Your task to perform on an android device: What's the weather going to be this weekend? Image 0: 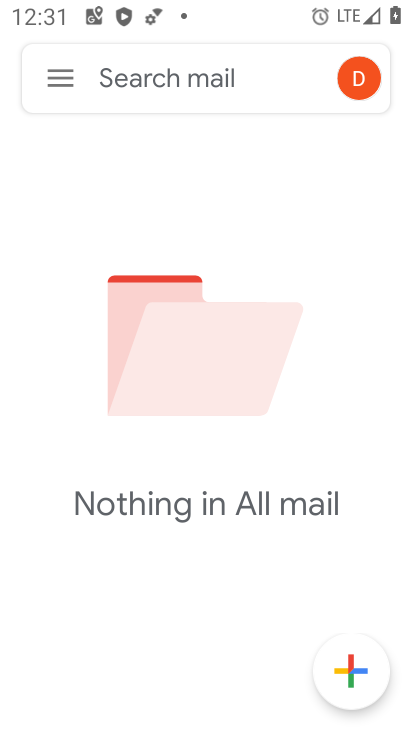
Step 0: press home button
Your task to perform on an android device: What's the weather going to be this weekend? Image 1: 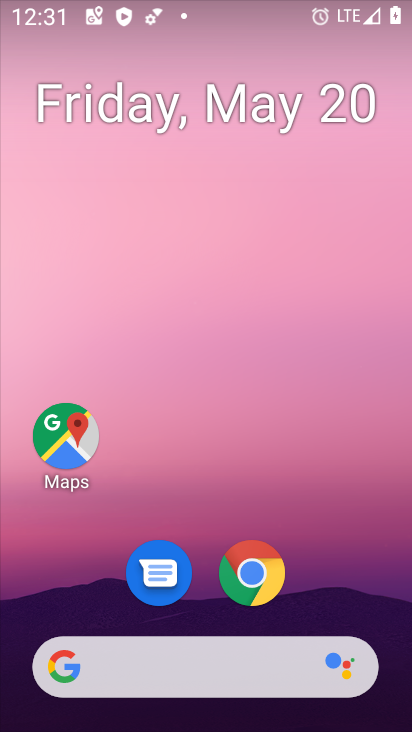
Step 1: drag from (343, 571) to (332, 30)
Your task to perform on an android device: What's the weather going to be this weekend? Image 2: 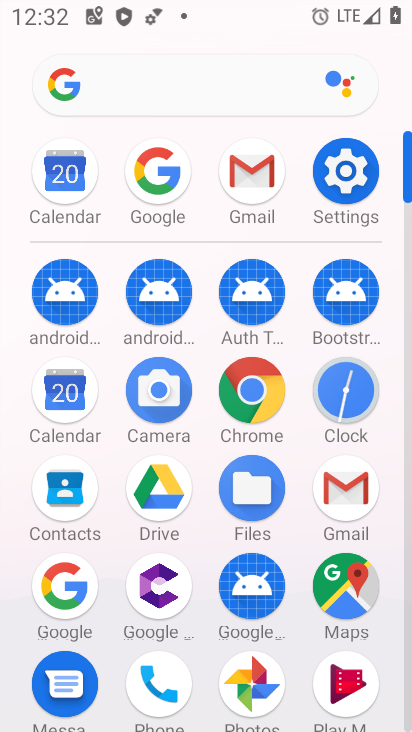
Step 2: click (165, 159)
Your task to perform on an android device: What's the weather going to be this weekend? Image 3: 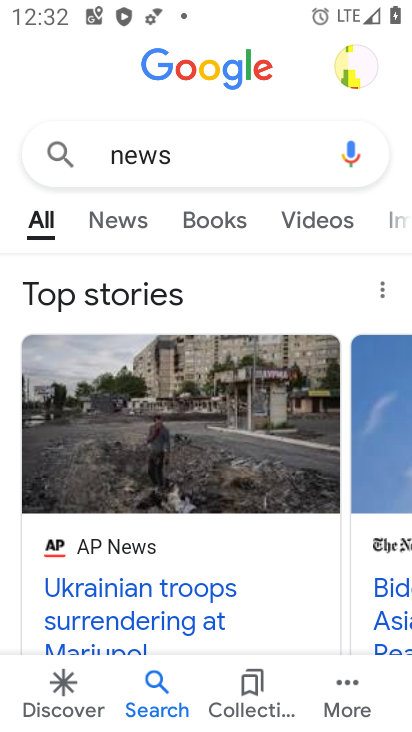
Step 3: click (197, 140)
Your task to perform on an android device: What's the weather going to be this weekend? Image 4: 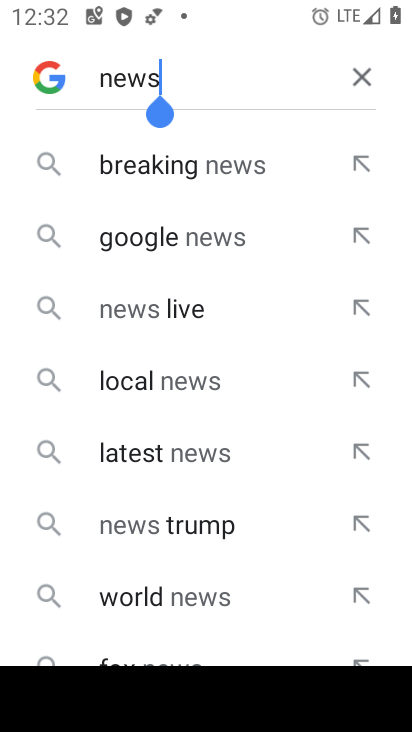
Step 4: click (357, 66)
Your task to perform on an android device: What's the weather going to be this weekend? Image 5: 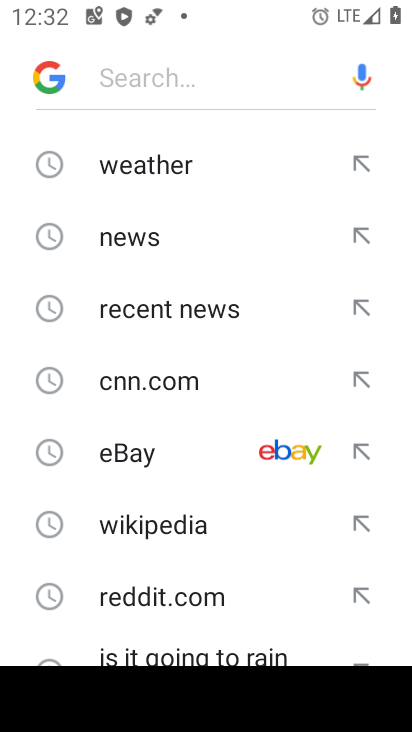
Step 5: type "weather going to be this weekend"
Your task to perform on an android device: What's the weather going to be this weekend? Image 6: 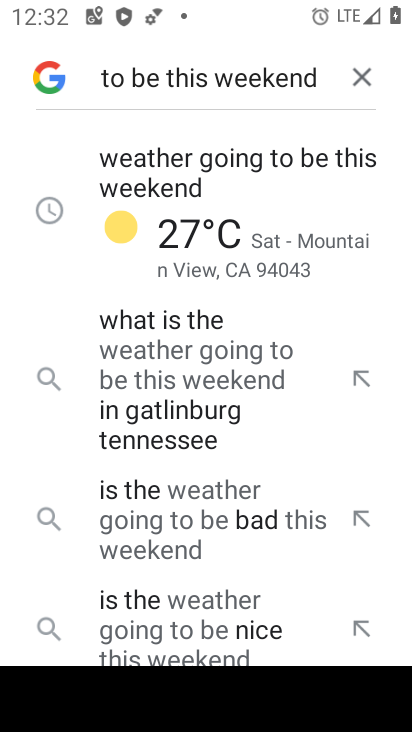
Step 6: click (231, 176)
Your task to perform on an android device: What's the weather going to be this weekend? Image 7: 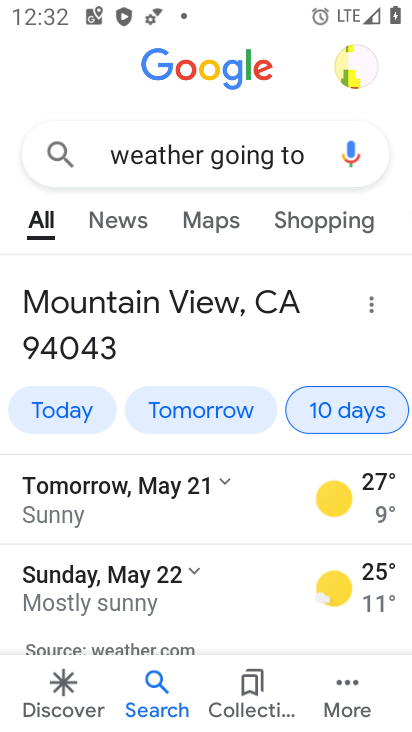
Step 7: task complete